Your task to perform on an android device: Open Youtube and go to "Your channel" Image 0: 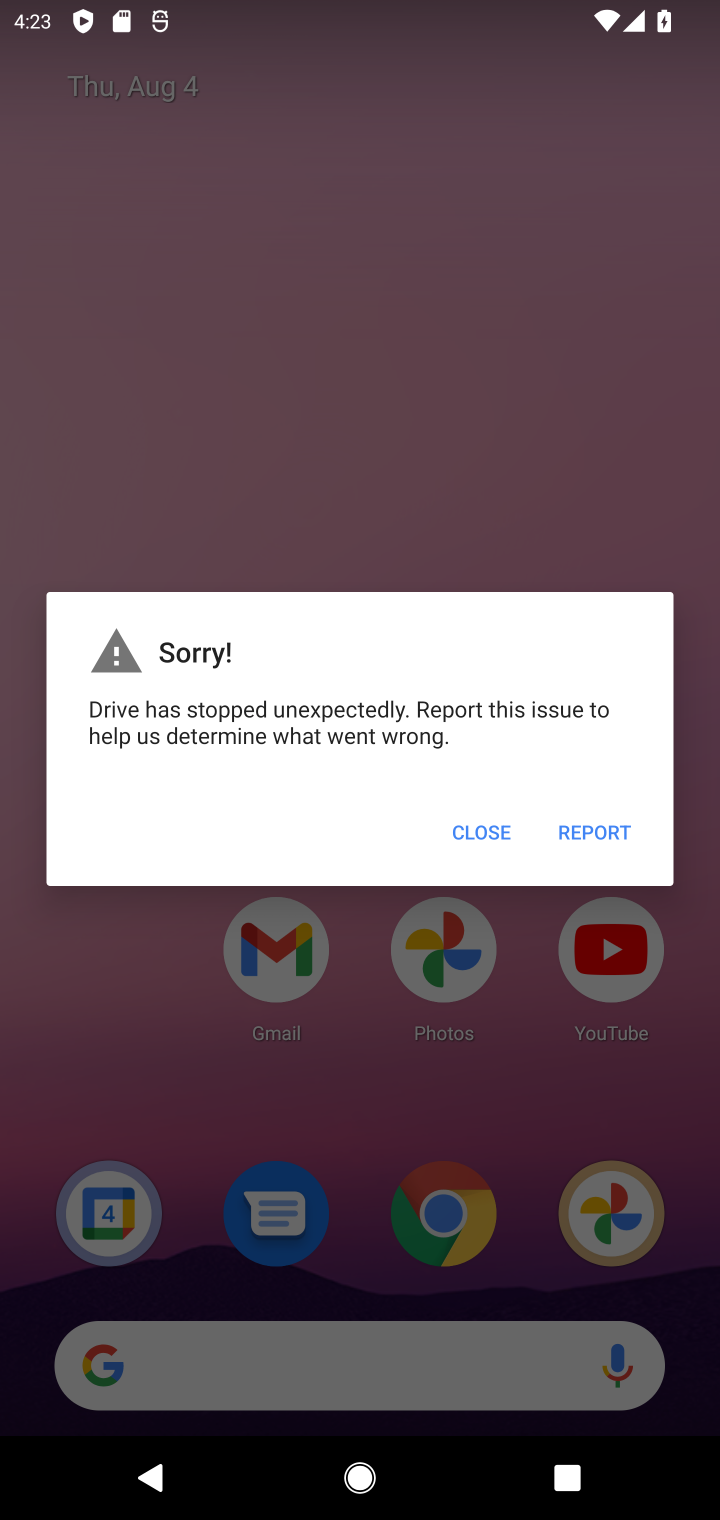
Step 0: press home button
Your task to perform on an android device: Open Youtube and go to "Your channel" Image 1: 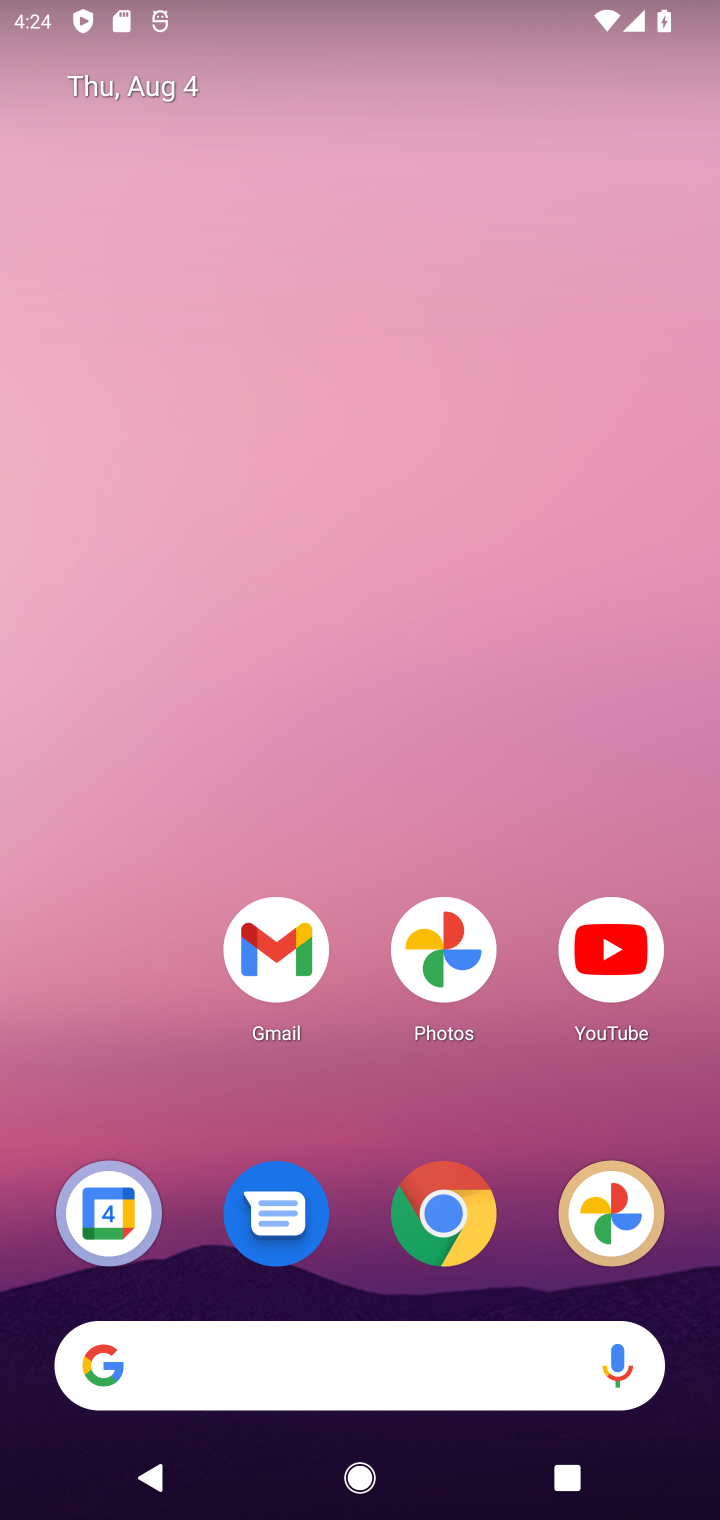
Step 1: drag from (145, 1017) to (129, 182)
Your task to perform on an android device: Open Youtube and go to "Your channel" Image 2: 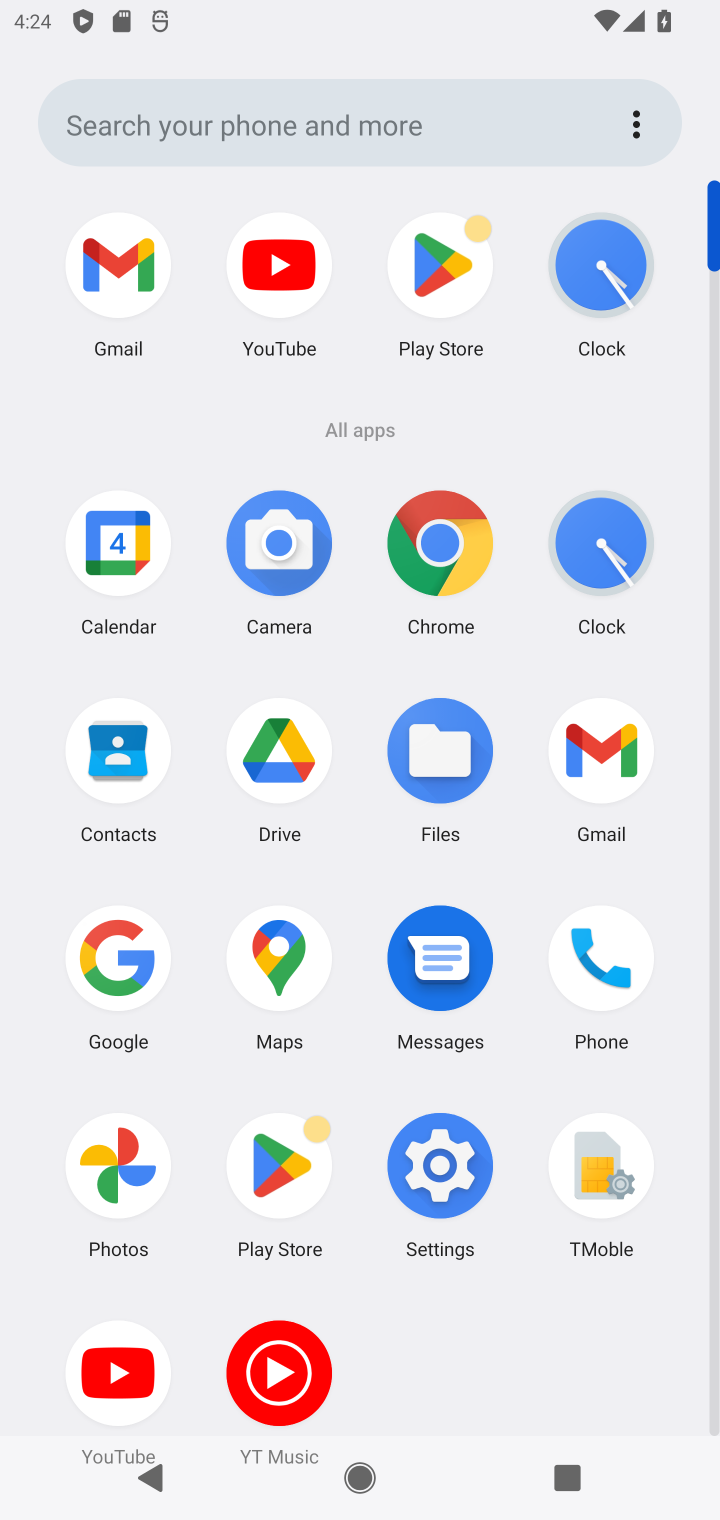
Step 2: click (303, 288)
Your task to perform on an android device: Open Youtube and go to "Your channel" Image 3: 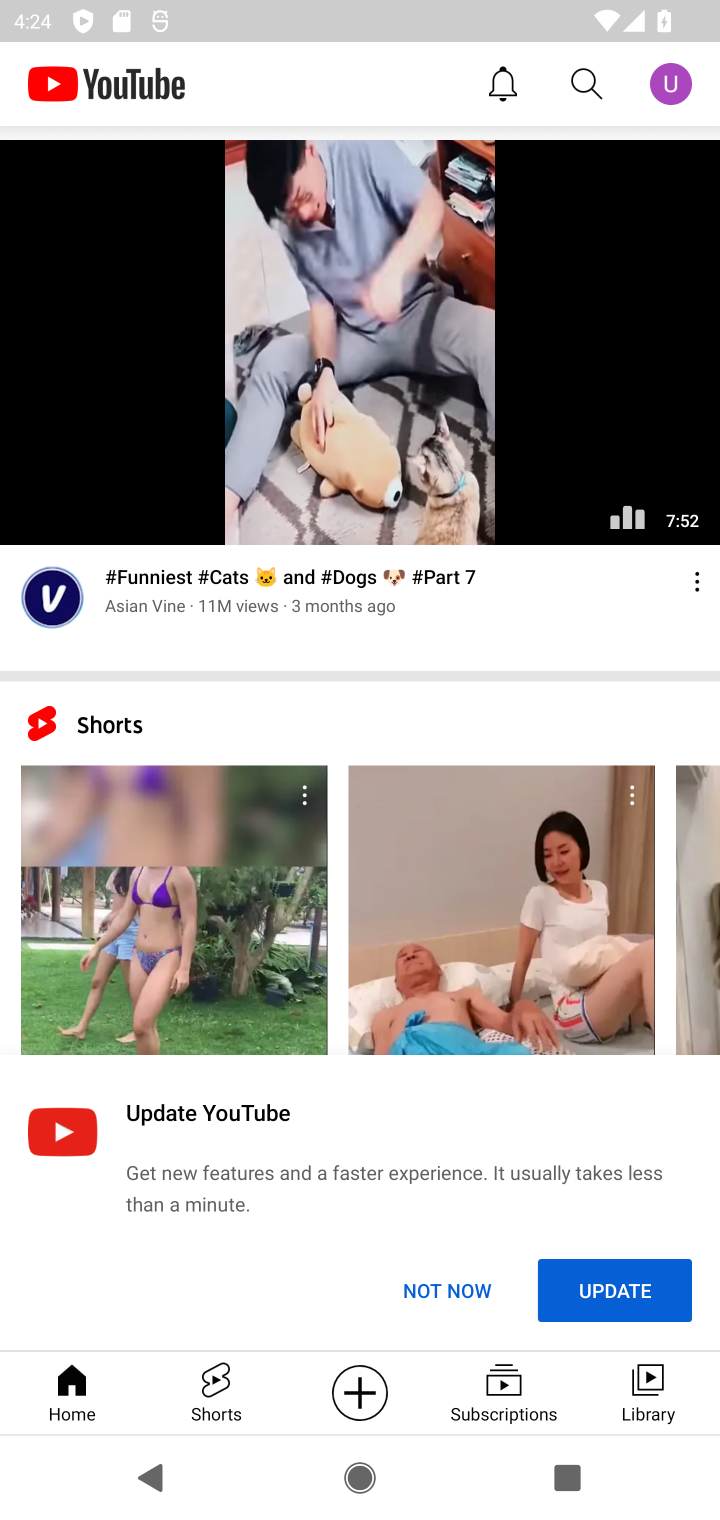
Step 3: click (673, 83)
Your task to perform on an android device: Open Youtube and go to "Your channel" Image 4: 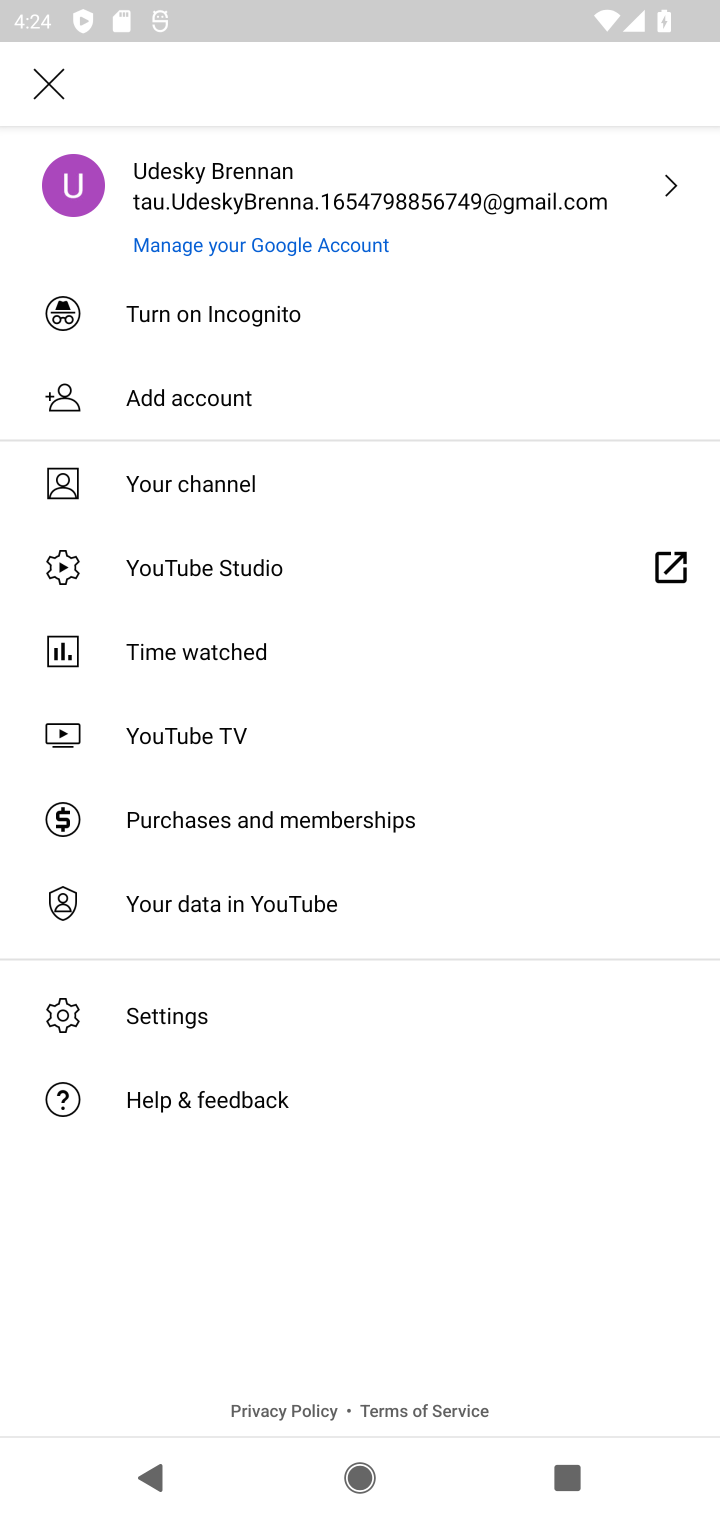
Step 4: click (251, 486)
Your task to perform on an android device: Open Youtube and go to "Your channel" Image 5: 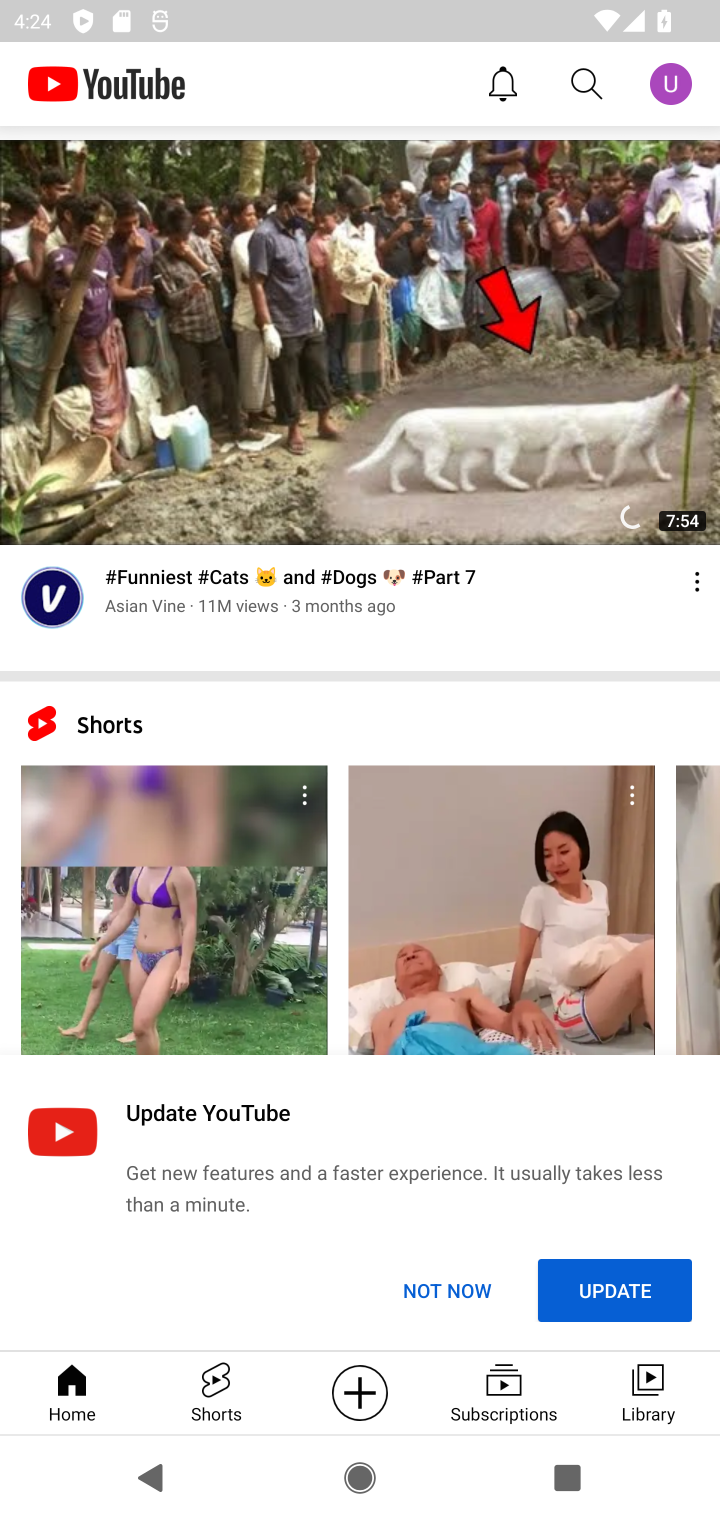
Step 5: task complete